Your task to perform on an android device: Go to ESPN.com Image 0: 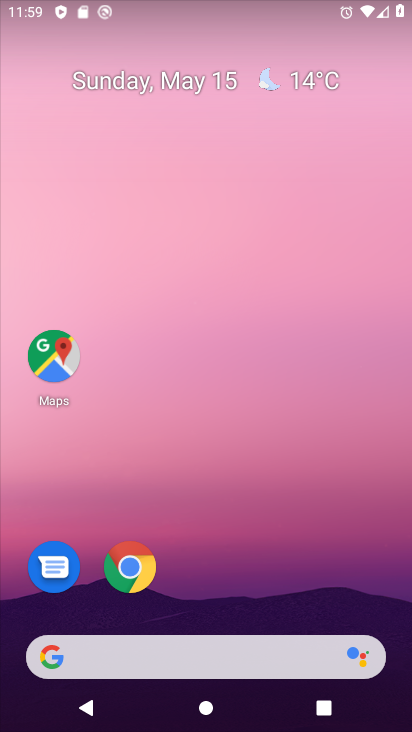
Step 0: click (136, 567)
Your task to perform on an android device: Go to ESPN.com Image 1: 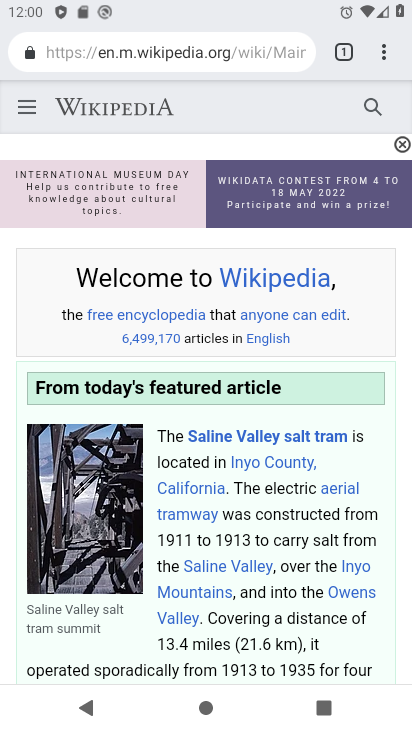
Step 1: click (155, 57)
Your task to perform on an android device: Go to ESPN.com Image 2: 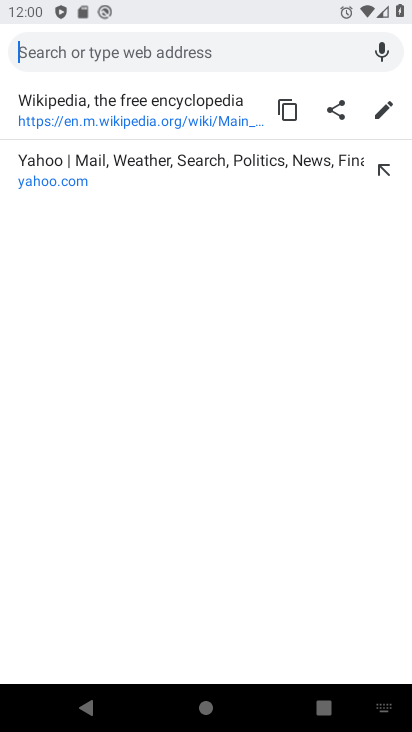
Step 2: type "ESPN.com"
Your task to perform on an android device: Go to ESPN.com Image 3: 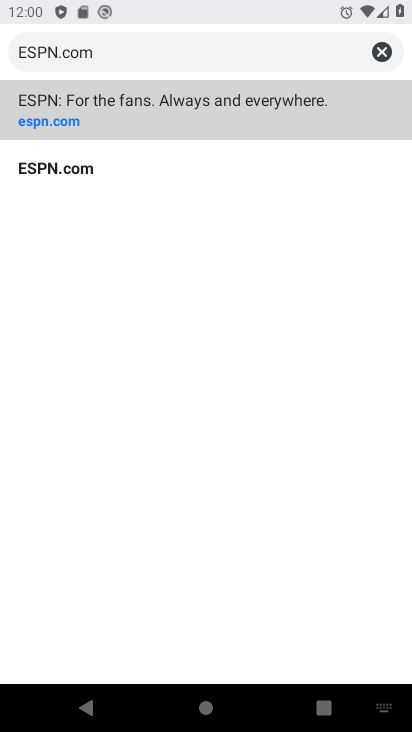
Step 3: click (36, 114)
Your task to perform on an android device: Go to ESPN.com Image 4: 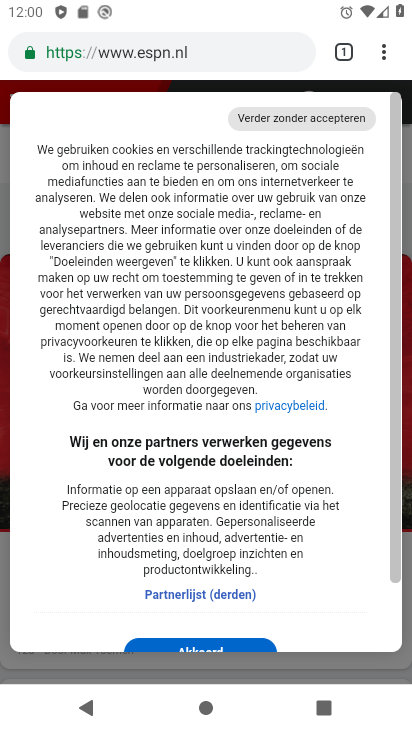
Step 4: task complete